Your task to perform on an android device: Do I have any events this weekend? Image 0: 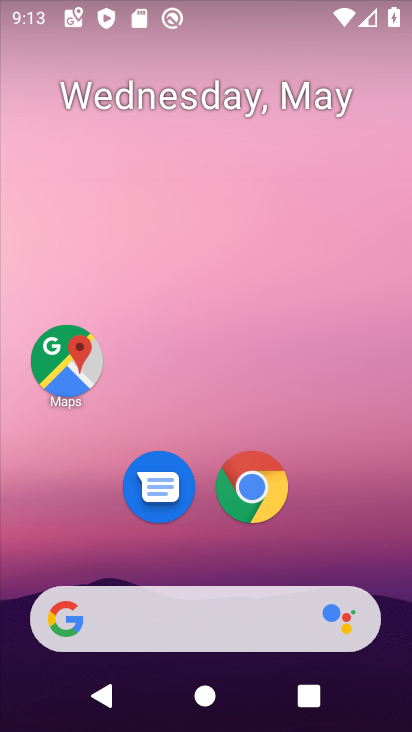
Step 0: drag from (351, 500) to (274, 80)
Your task to perform on an android device: Do I have any events this weekend? Image 1: 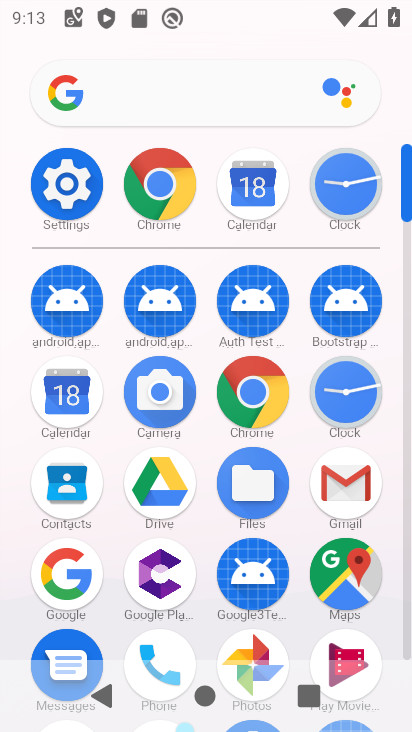
Step 1: click (74, 402)
Your task to perform on an android device: Do I have any events this weekend? Image 2: 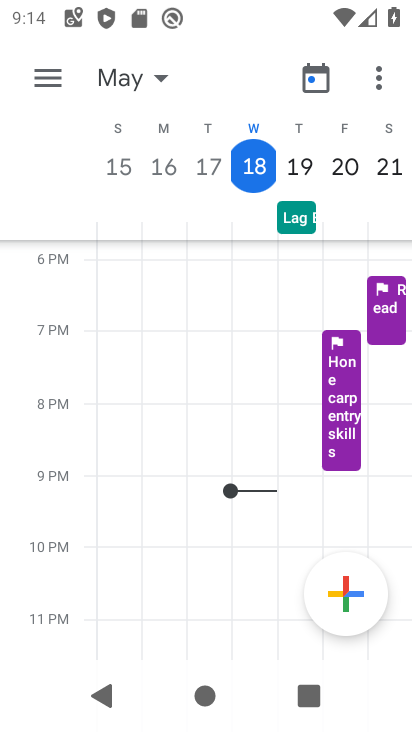
Step 2: task complete